Your task to perform on an android device: View the shopping cart on walmart. Search for "logitech g pro" on walmart, select the first entry, add it to the cart, then select checkout. Image 0: 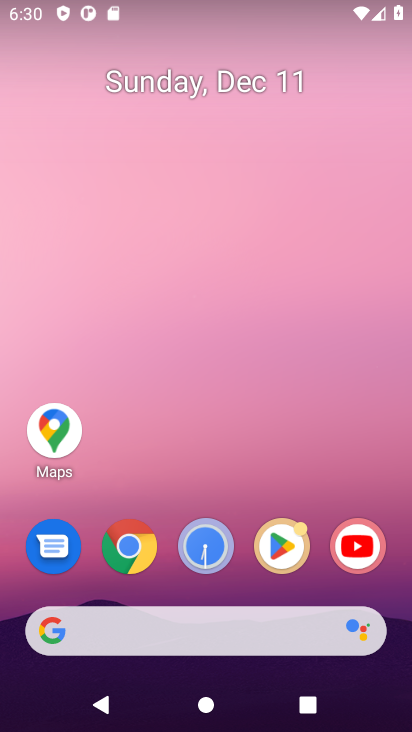
Step 0: click (135, 551)
Your task to perform on an android device: View the shopping cart on walmart. Search for "logitech g pro" on walmart, select the first entry, add it to the cart, then select checkout. Image 1: 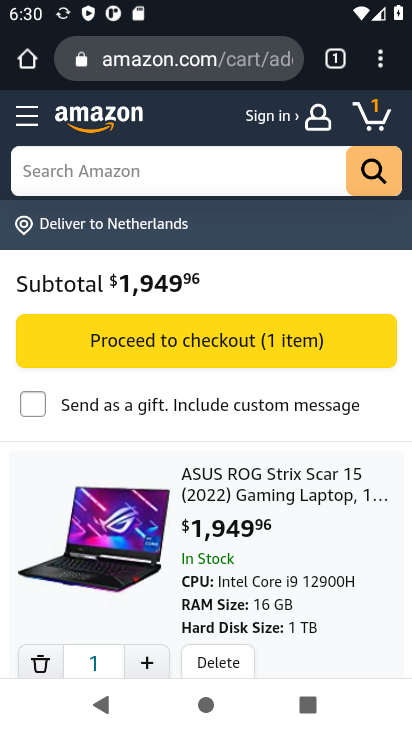
Step 1: click (162, 69)
Your task to perform on an android device: View the shopping cart on walmart. Search for "logitech g pro" on walmart, select the first entry, add it to the cart, then select checkout. Image 2: 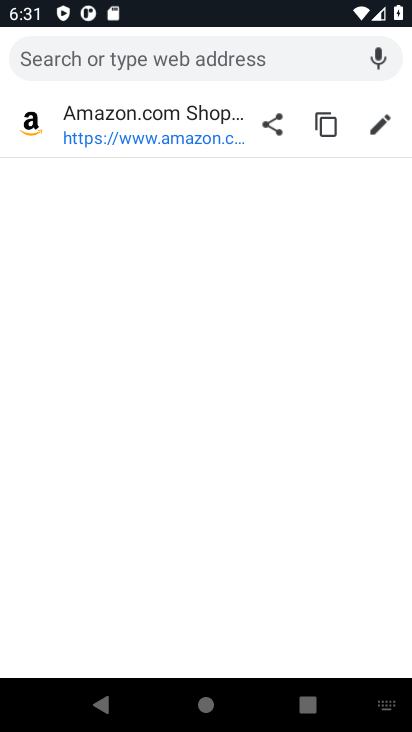
Step 2: type "walmart.com"
Your task to perform on an android device: View the shopping cart on walmart. Search for "logitech g pro" on walmart, select the first entry, add it to the cart, then select checkout. Image 3: 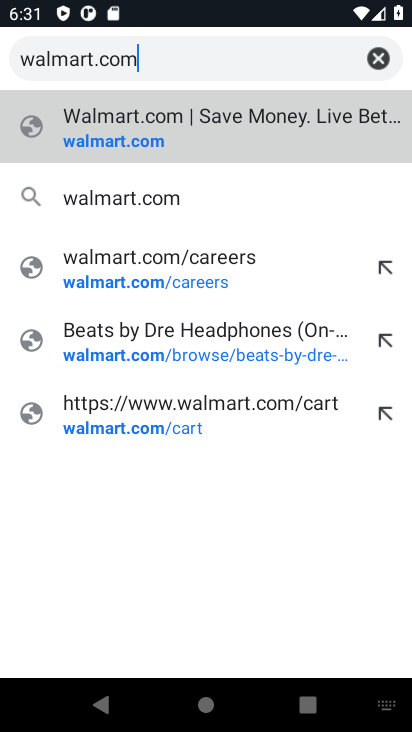
Step 3: click (115, 140)
Your task to perform on an android device: View the shopping cart on walmart. Search for "logitech g pro" on walmart, select the first entry, add it to the cart, then select checkout. Image 4: 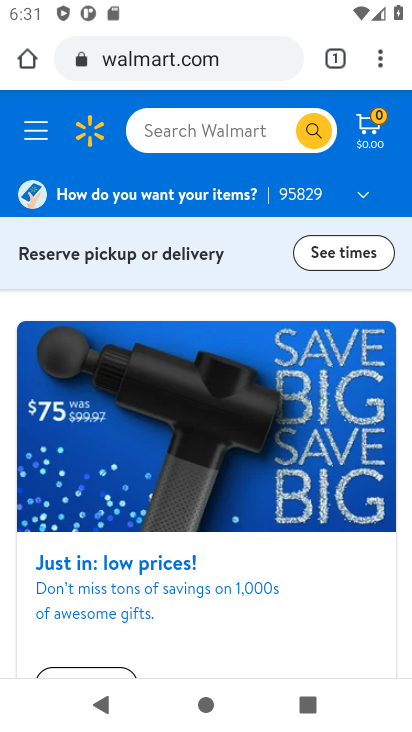
Step 4: click (374, 135)
Your task to perform on an android device: View the shopping cart on walmart. Search for "logitech g pro" on walmart, select the first entry, add it to the cart, then select checkout. Image 5: 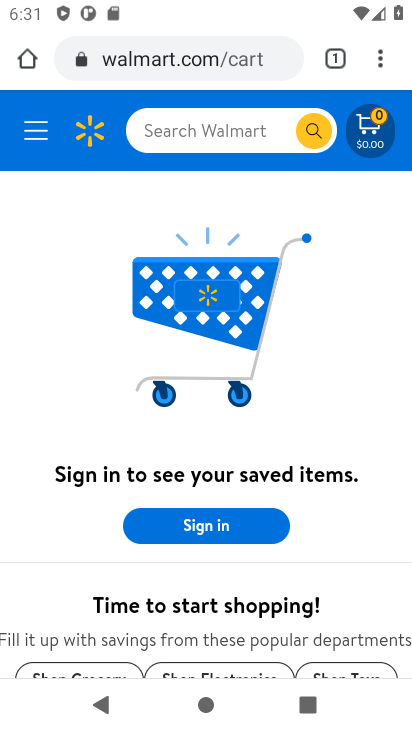
Step 5: click (167, 134)
Your task to perform on an android device: View the shopping cart on walmart. Search for "logitech g pro" on walmart, select the first entry, add it to the cart, then select checkout. Image 6: 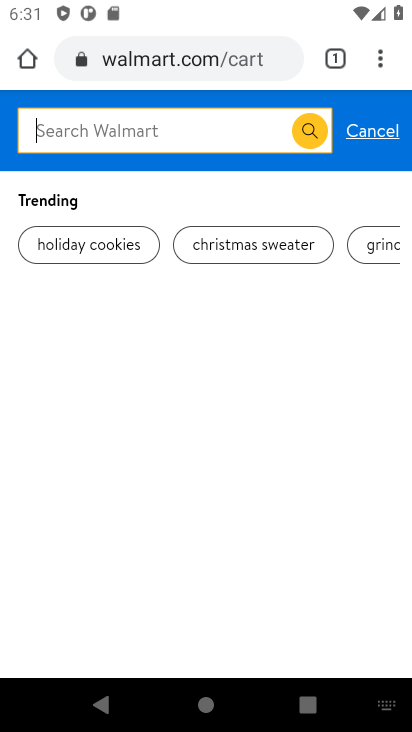
Step 6: type "logitech g pro"
Your task to perform on an android device: View the shopping cart on walmart. Search for "logitech g pro" on walmart, select the first entry, add it to the cart, then select checkout. Image 7: 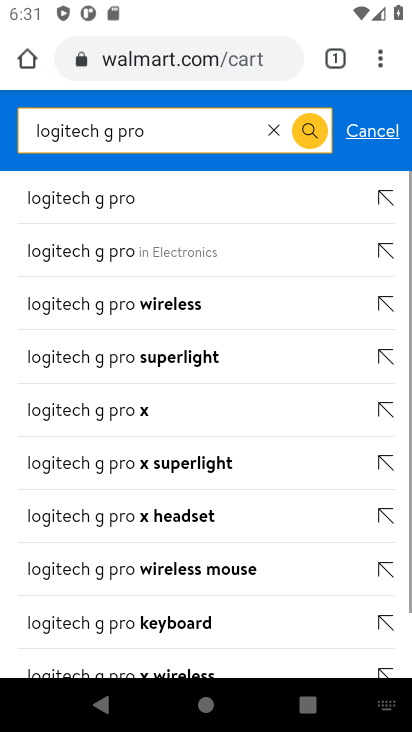
Step 7: click (100, 197)
Your task to perform on an android device: View the shopping cart on walmart. Search for "logitech g pro" on walmart, select the first entry, add it to the cart, then select checkout. Image 8: 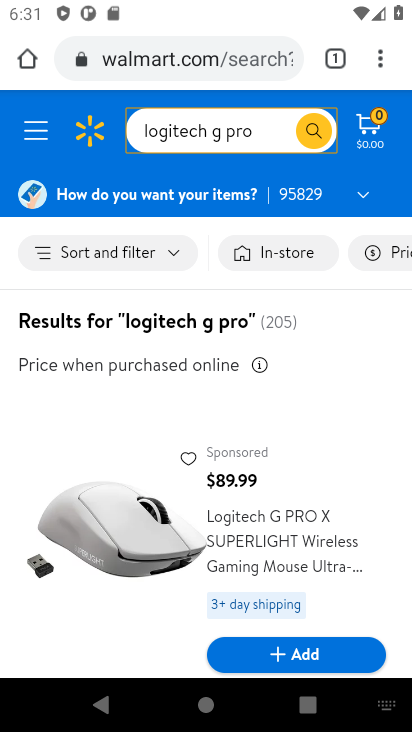
Step 8: drag from (301, 485) to (301, 344)
Your task to perform on an android device: View the shopping cart on walmart. Search for "logitech g pro" on walmart, select the first entry, add it to the cart, then select checkout. Image 9: 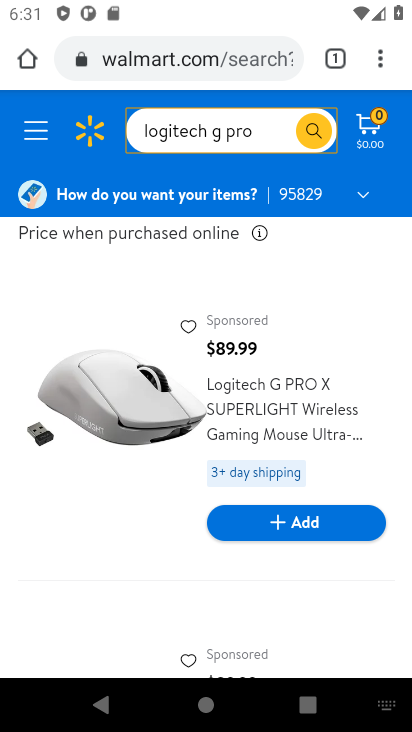
Step 9: click (279, 524)
Your task to perform on an android device: View the shopping cart on walmart. Search for "logitech g pro" on walmart, select the first entry, add it to the cart, then select checkout. Image 10: 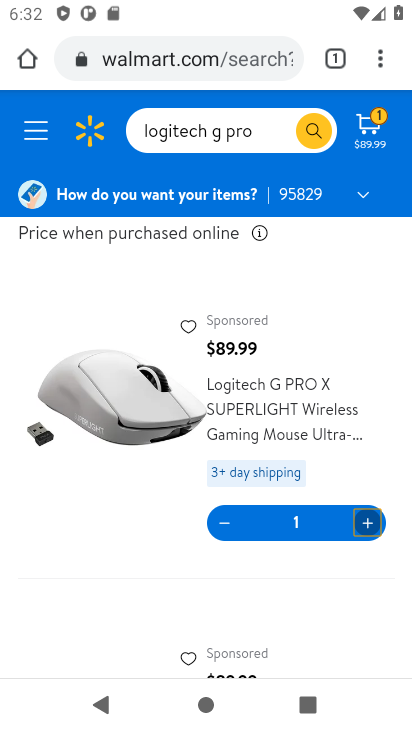
Step 10: click (370, 132)
Your task to perform on an android device: View the shopping cart on walmart. Search for "logitech g pro" on walmart, select the first entry, add it to the cart, then select checkout. Image 11: 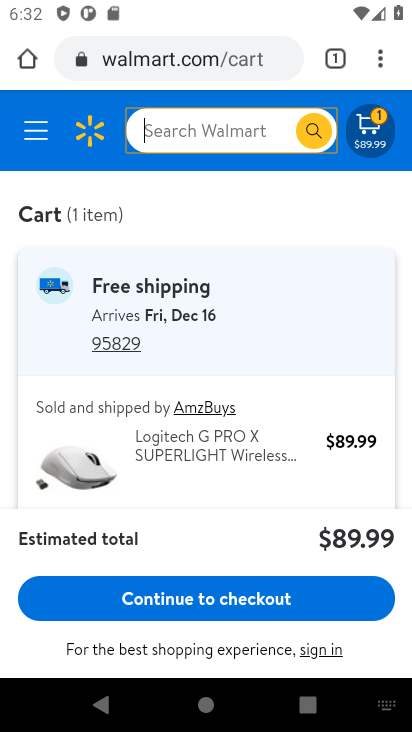
Step 11: click (175, 600)
Your task to perform on an android device: View the shopping cart on walmart. Search for "logitech g pro" on walmart, select the first entry, add it to the cart, then select checkout. Image 12: 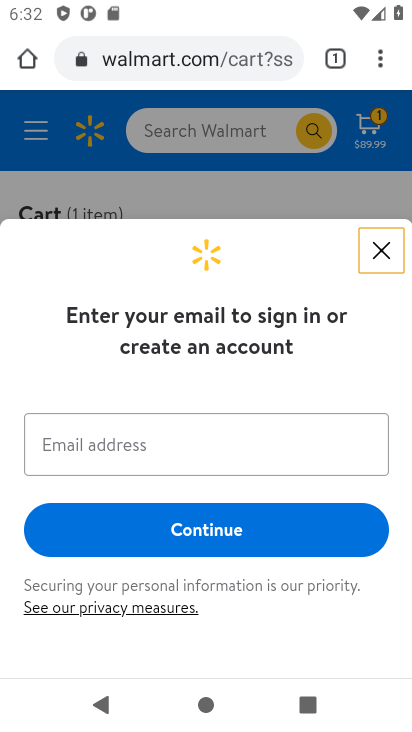
Step 12: task complete